Your task to perform on an android device: turn on airplane mode Image 0: 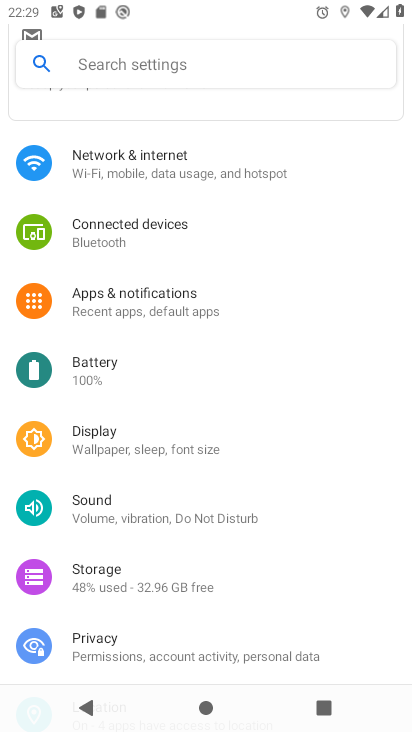
Step 0: click (198, 165)
Your task to perform on an android device: turn on airplane mode Image 1: 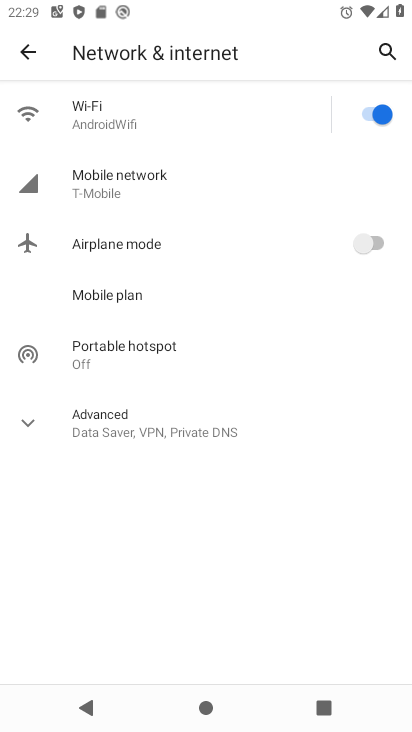
Step 1: click (381, 238)
Your task to perform on an android device: turn on airplane mode Image 2: 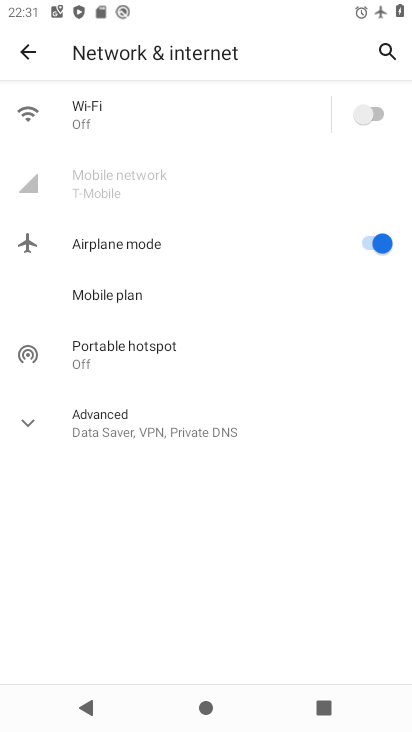
Step 2: task complete